Your task to perform on an android device: Toggle the flashlight Image 0: 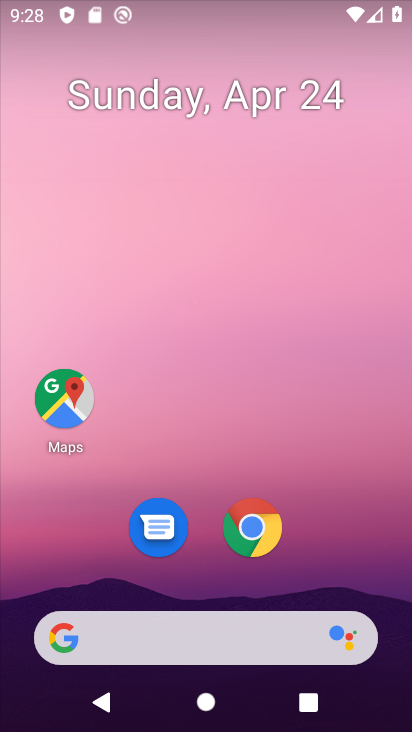
Step 0: drag from (204, 479) to (254, 83)
Your task to perform on an android device: Toggle the flashlight Image 1: 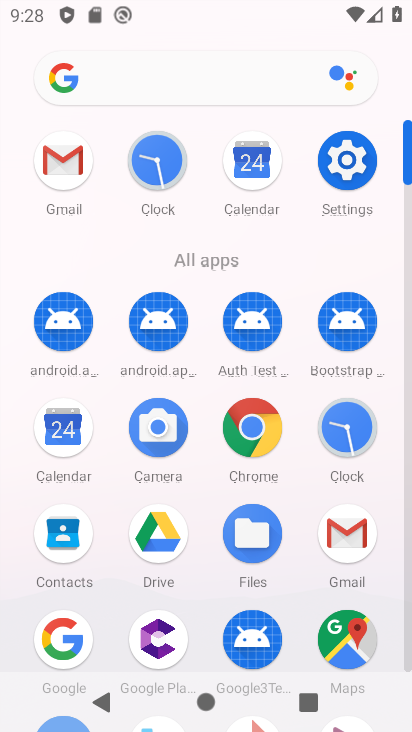
Step 1: click (347, 168)
Your task to perform on an android device: Toggle the flashlight Image 2: 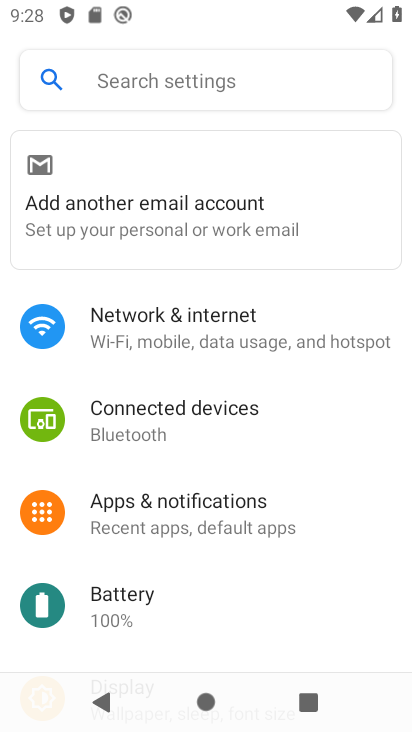
Step 2: click (140, 75)
Your task to perform on an android device: Toggle the flashlight Image 3: 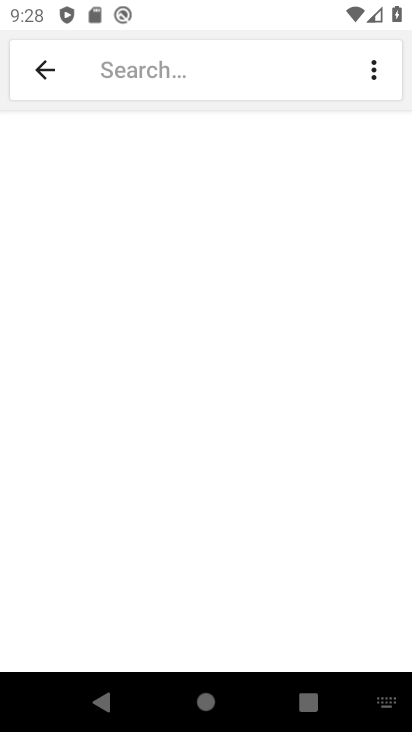
Step 3: type "flashlight"
Your task to perform on an android device: Toggle the flashlight Image 4: 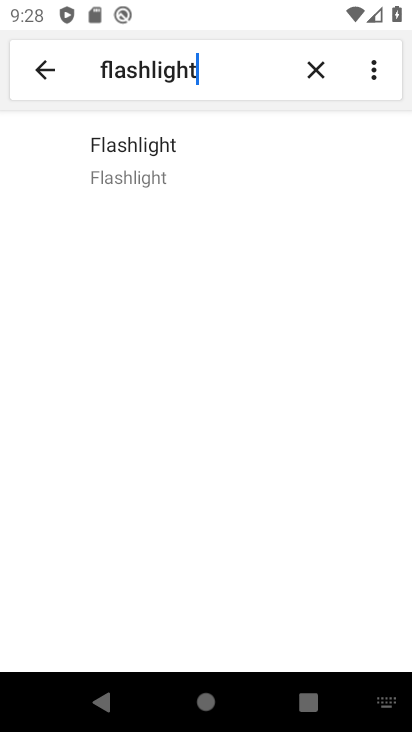
Step 4: click (162, 149)
Your task to perform on an android device: Toggle the flashlight Image 5: 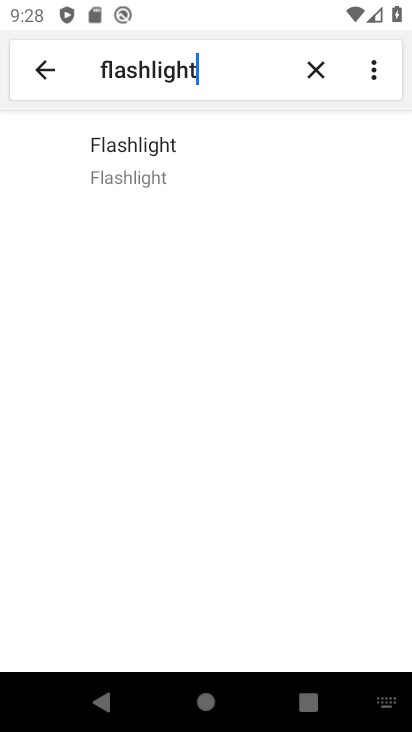
Step 5: task complete